Your task to perform on an android device: change notification settings in the gmail app Image 0: 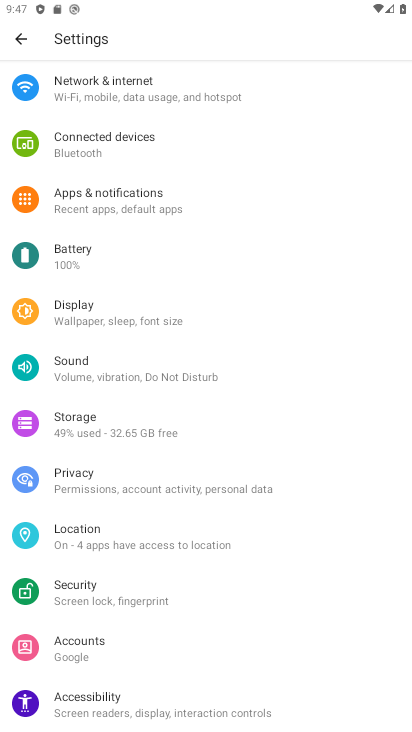
Step 0: press home button
Your task to perform on an android device: change notification settings in the gmail app Image 1: 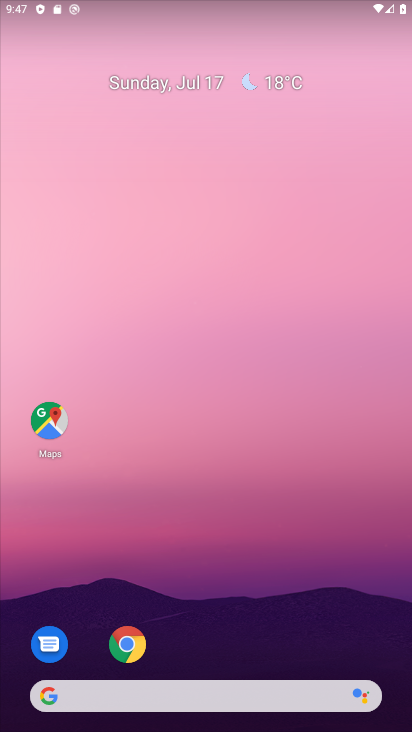
Step 1: drag from (385, 696) to (339, 3)
Your task to perform on an android device: change notification settings in the gmail app Image 2: 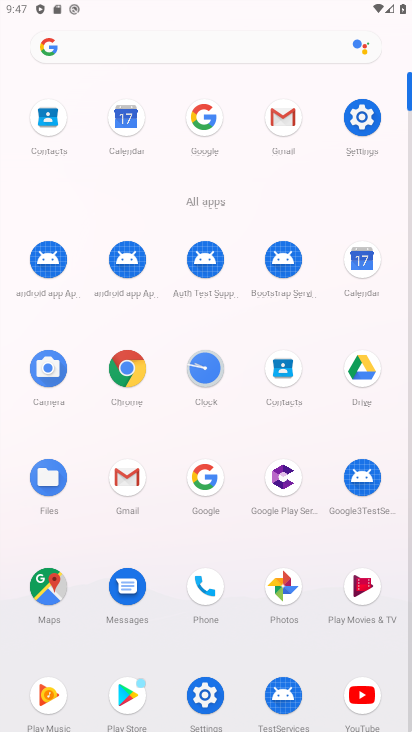
Step 2: click (135, 482)
Your task to perform on an android device: change notification settings in the gmail app Image 3: 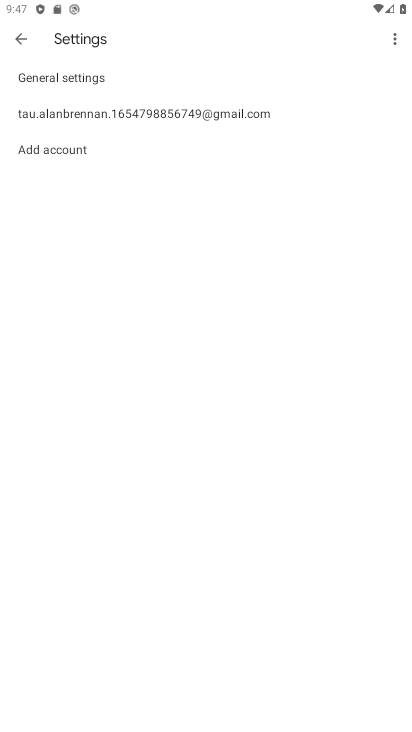
Step 3: click (52, 107)
Your task to perform on an android device: change notification settings in the gmail app Image 4: 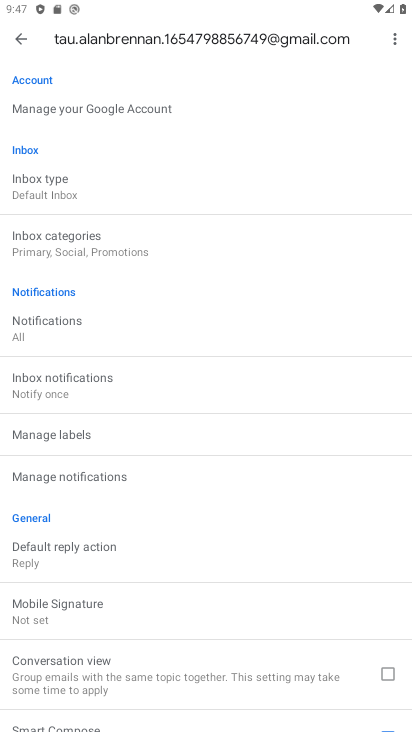
Step 4: click (37, 320)
Your task to perform on an android device: change notification settings in the gmail app Image 5: 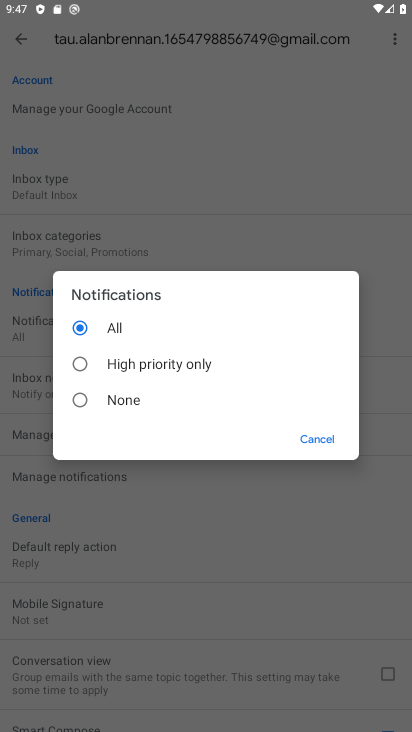
Step 5: click (91, 360)
Your task to perform on an android device: change notification settings in the gmail app Image 6: 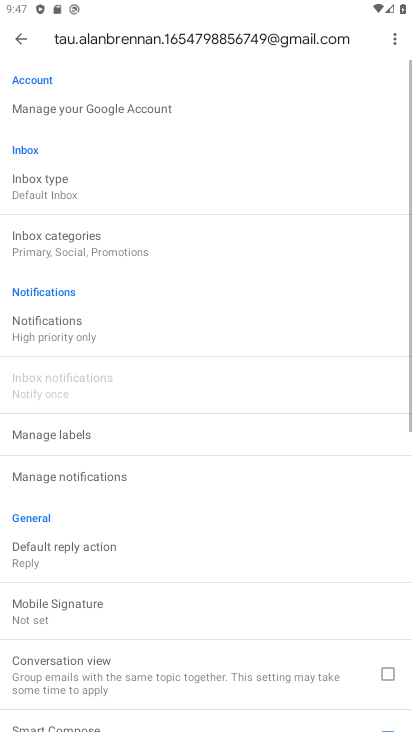
Step 6: task complete